Your task to perform on an android device: Open Android settings Image 0: 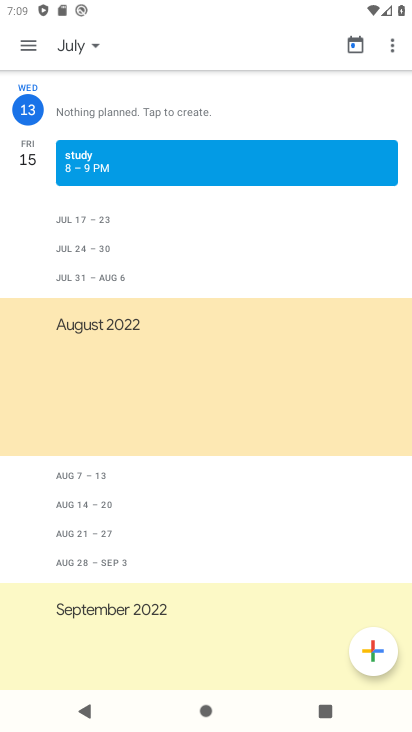
Step 0: press home button
Your task to perform on an android device: Open Android settings Image 1: 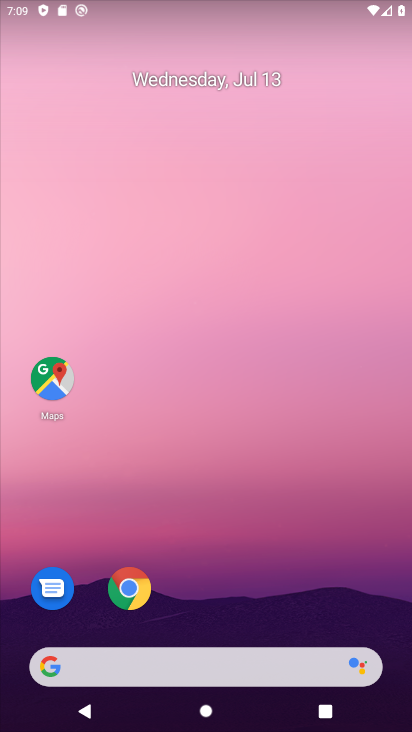
Step 1: drag from (225, 568) to (151, 95)
Your task to perform on an android device: Open Android settings Image 2: 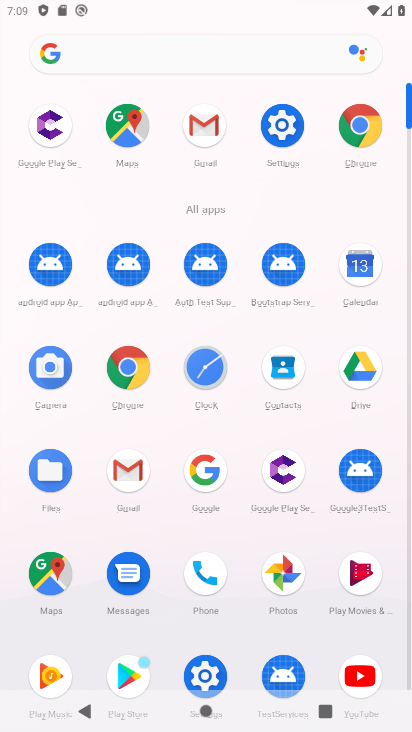
Step 2: click (287, 122)
Your task to perform on an android device: Open Android settings Image 3: 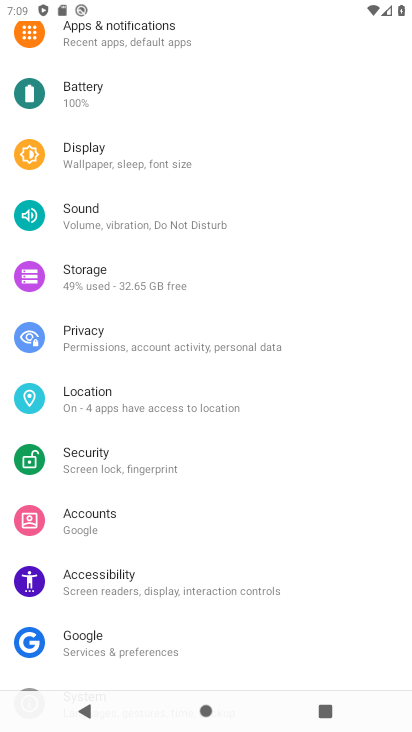
Step 3: task complete